Your task to perform on an android device: toggle notification dots Image 0: 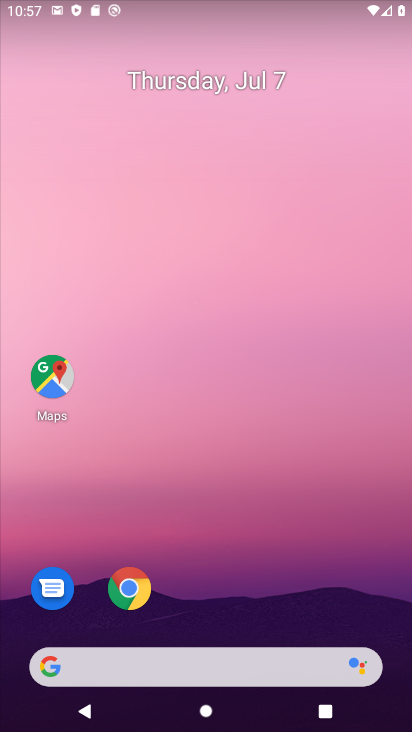
Step 0: drag from (248, 608) to (170, 21)
Your task to perform on an android device: toggle notification dots Image 1: 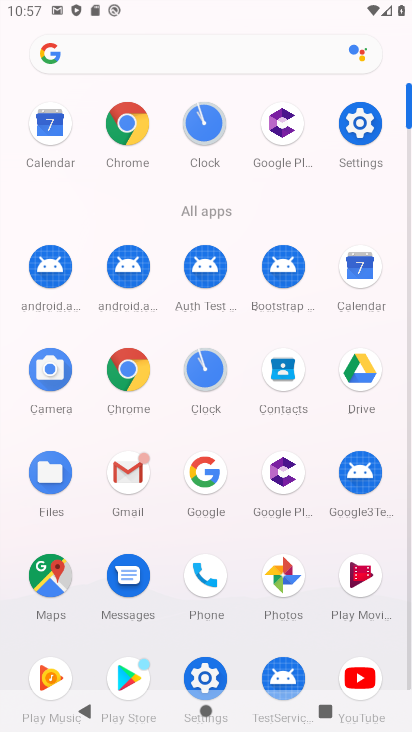
Step 1: click (367, 109)
Your task to perform on an android device: toggle notification dots Image 2: 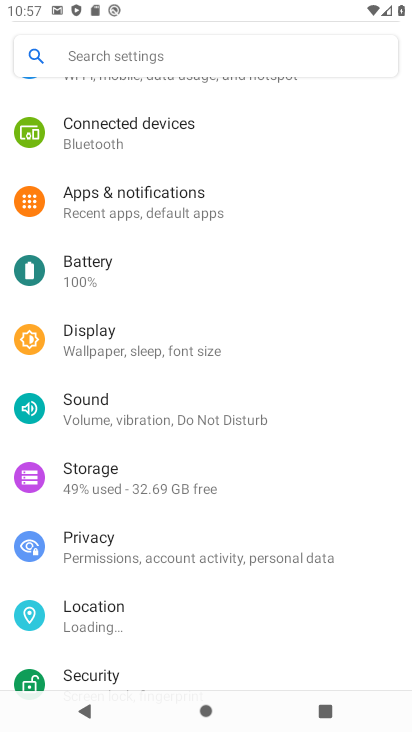
Step 2: click (120, 218)
Your task to perform on an android device: toggle notification dots Image 3: 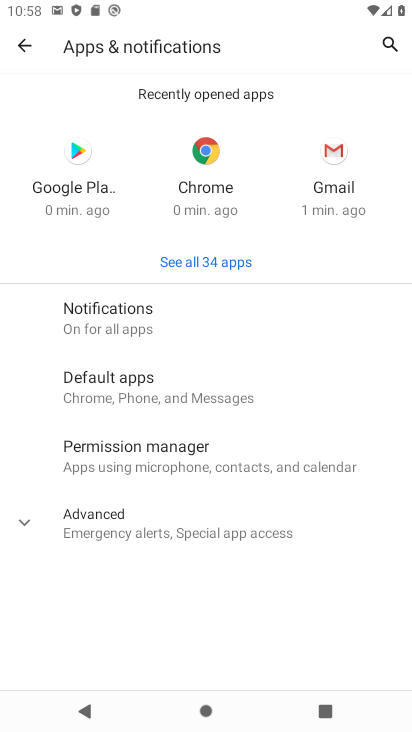
Step 3: click (93, 317)
Your task to perform on an android device: toggle notification dots Image 4: 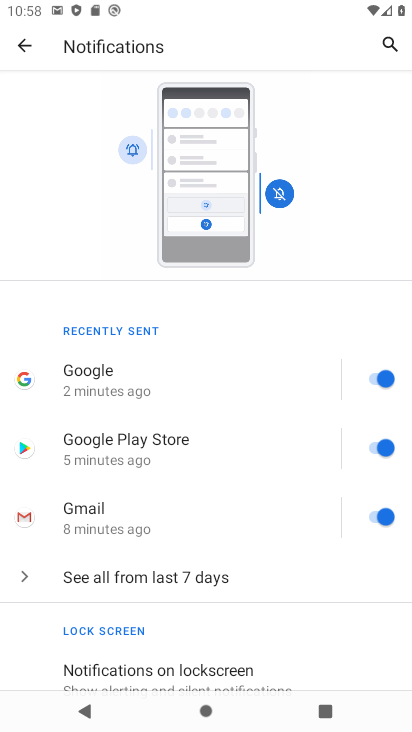
Step 4: drag from (139, 636) to (133, 168)
Your task to perform on an android device: toggle notification dots Image 5: 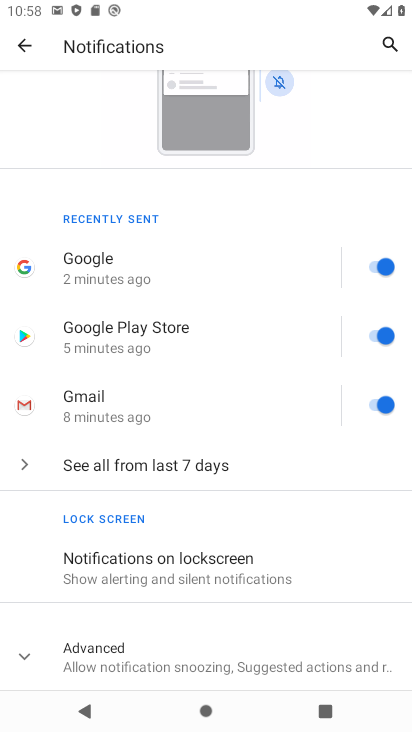
Step 5: click (171, 649)
Your task to perform on an android device: toggle notification dots Image 6: 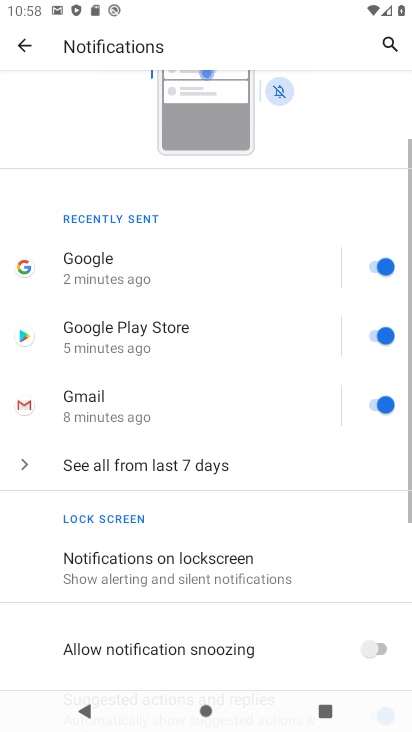
Step 6: drag from (171, 646) to (96, 53)
Your task to perform on an android device: toggle notification dots Image 7: 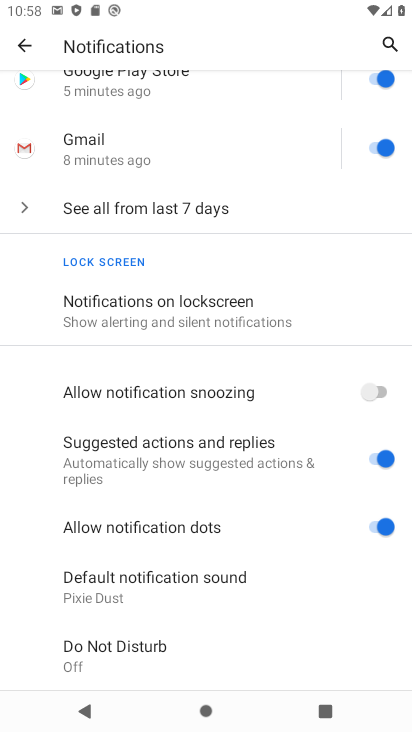
Step 7: click (367, 528)
Your task to perform on an android device: toggle notification dots Image 8: 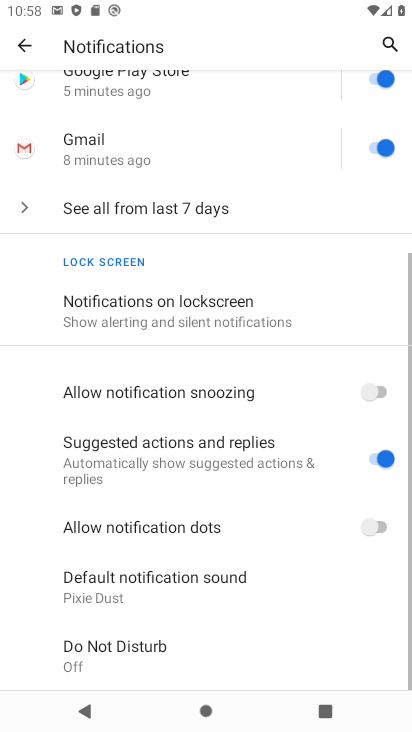
Step 8: task complete